Your task to perform on an android device: turn notification dots off Image 0: 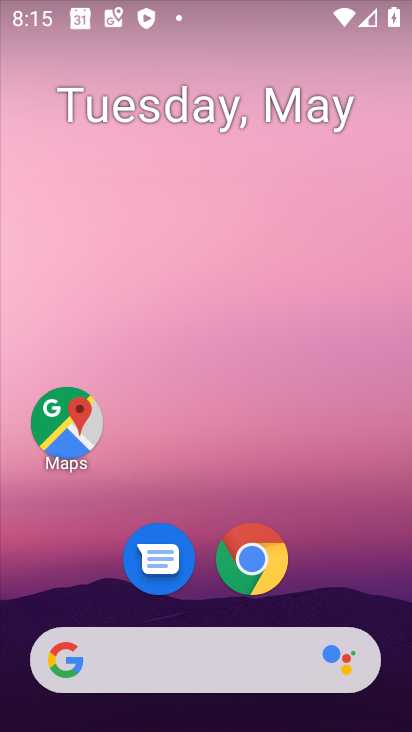
Step 0: drag from (185, 528) to (290, 102)
Your task to perform on an android device: turn notification dots off Image 1: 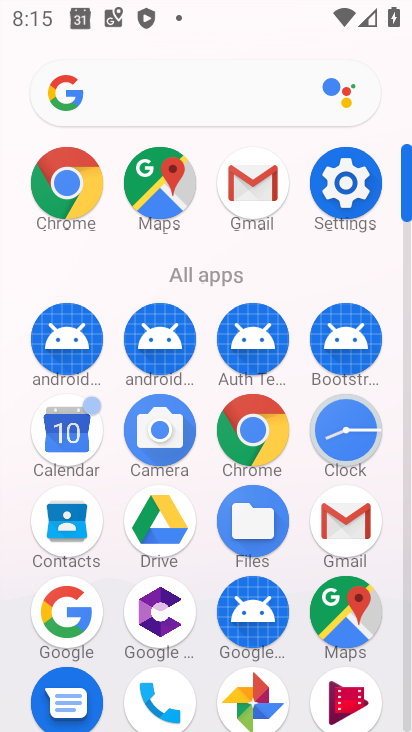
Step 1: click (345, 195)
Your task to perform on an android device: turn notification dots off Image 2: 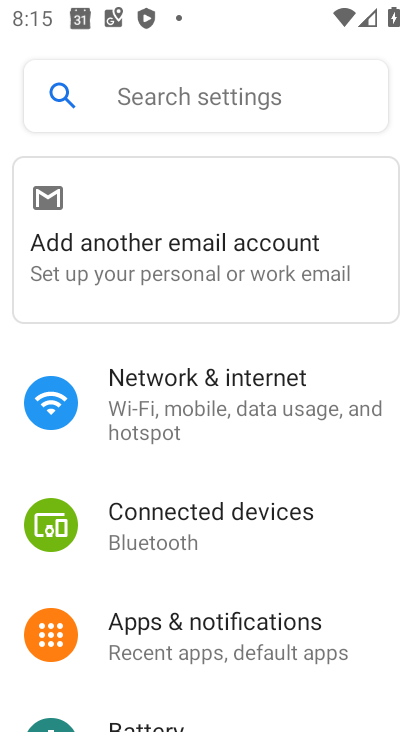
Step 2: click (183, 638)
Your task to perform on an android device: turn notification dots off Image 3: 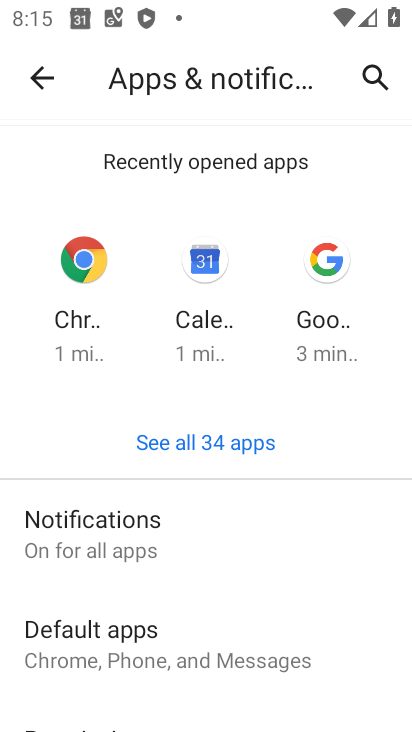
Step 3: click (158, 537)
Your task to perform on an android device: turn notification dots off Image 4: 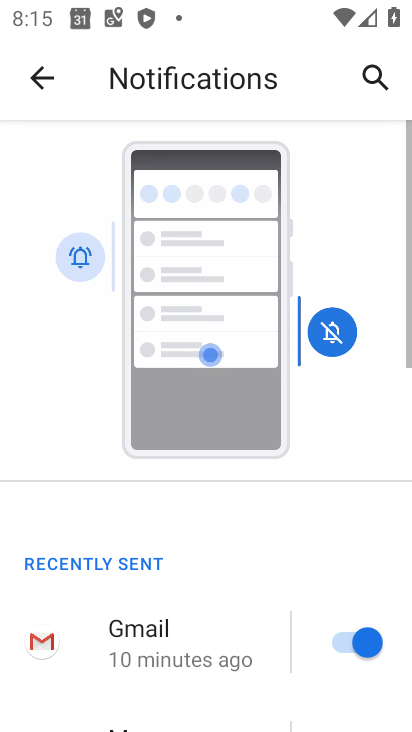
Step 4: drag from (144, 654) to (253, 103)
Your task to perform on an android device: turn notification dots off Image 5: 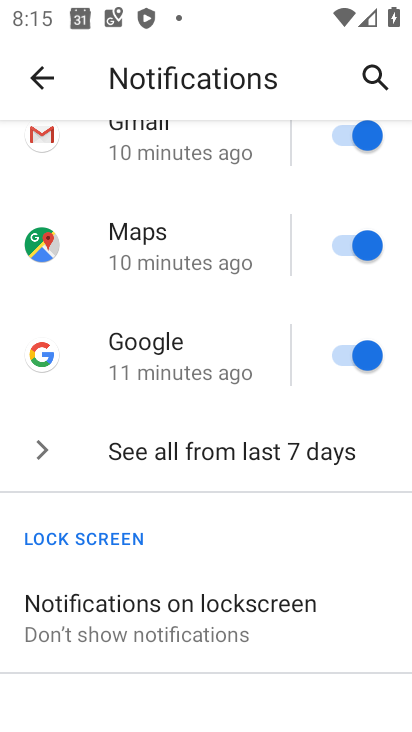
Step 5: drag from (194, 641) to (220, 377)
Your task to perform on an android device: turn notification dots off Image 6: 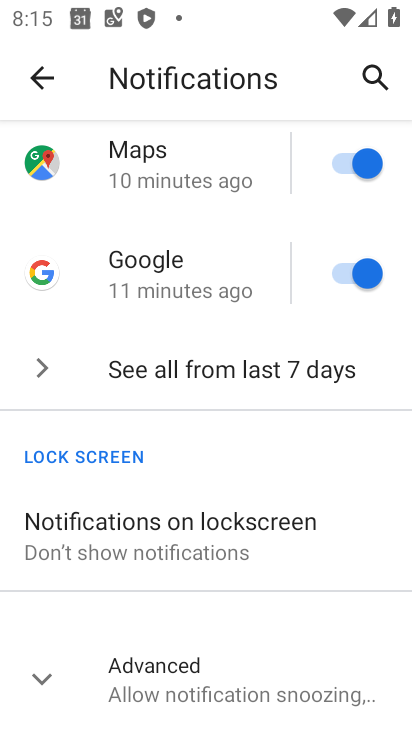
Step 6: click (189, 670)
Your task to perform on an android device: turn notification dots off Image 7: 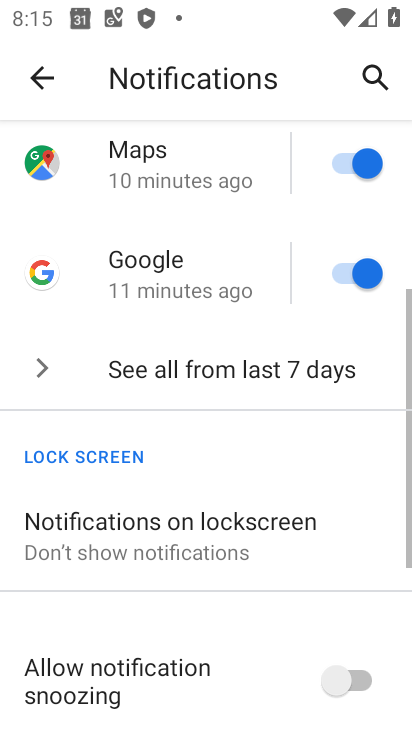
Step 7: drag from (198, 621) to (260, 298)
Your task to perform on an android device: turn notification dots off Image 8: 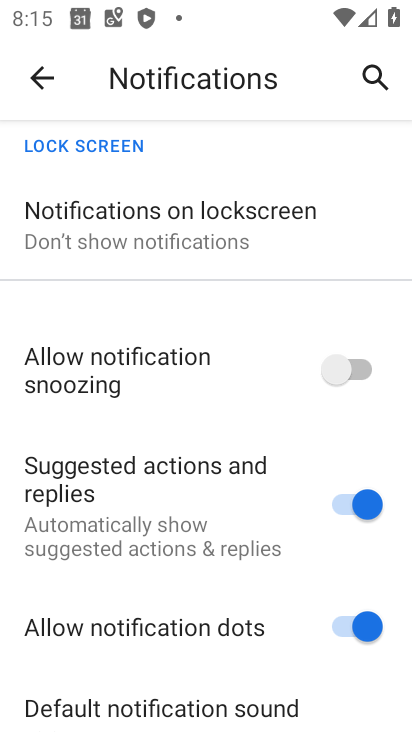
Step 8: click (351, 628)
Your task to perform on an android device: turn notification dots off Image 9: 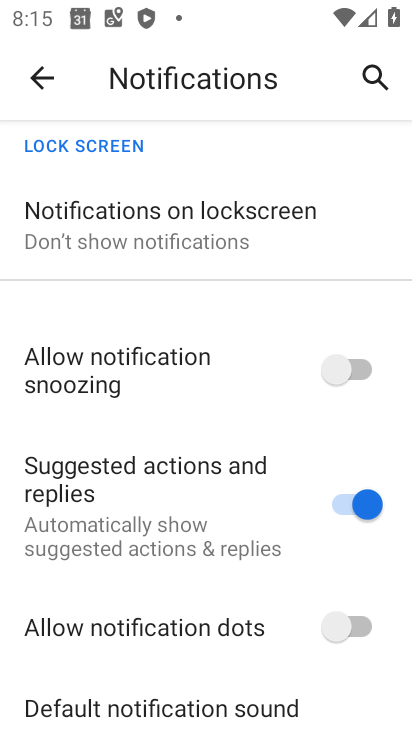
Step 9: task complete